Your task to perform on an android device: Open internet settings Image 0: 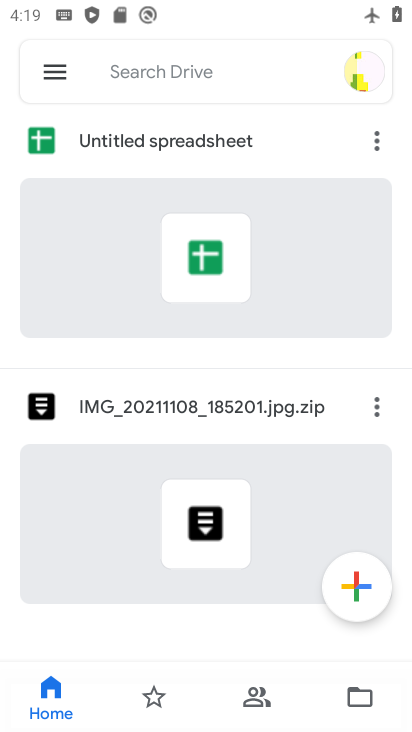
Step 0: press home button
Your task to perform on an android device: Open internet settings Image 1: 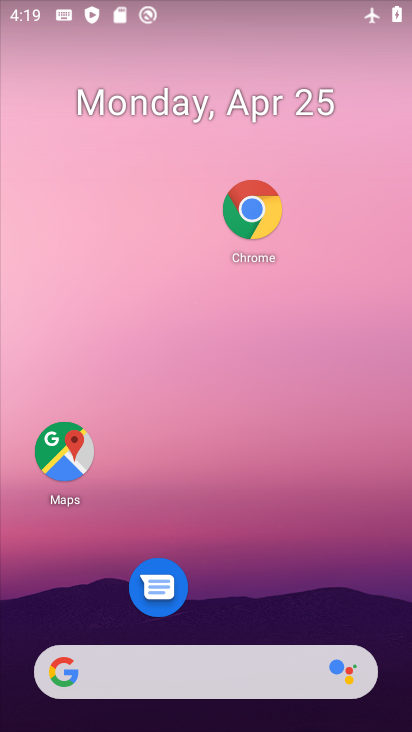
Step 1: drag from (270, 527) to (129, 197)
Your task to perform on an android device: Open internet settings Image 2: 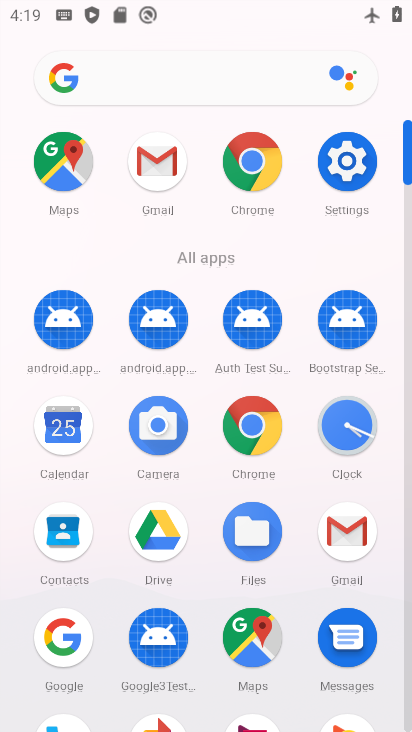
Step 2: click (367, 167)
Your task to perform on an android device: Open internet settings Image 3: 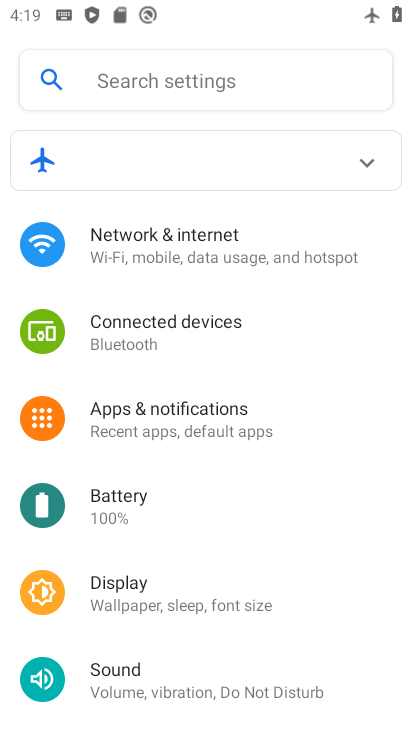
Step 3: click (290, 244)
Your task to perform on an android device: Open internet settings Image 4: 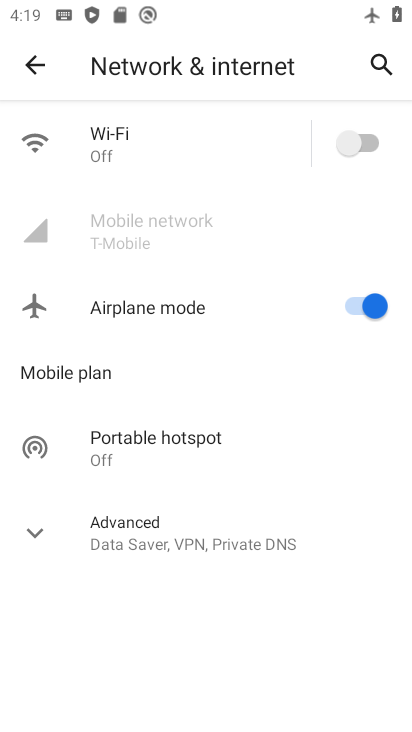
Step 4: task complete